Your task to perform on an android device: Go to Android settings Image 0: 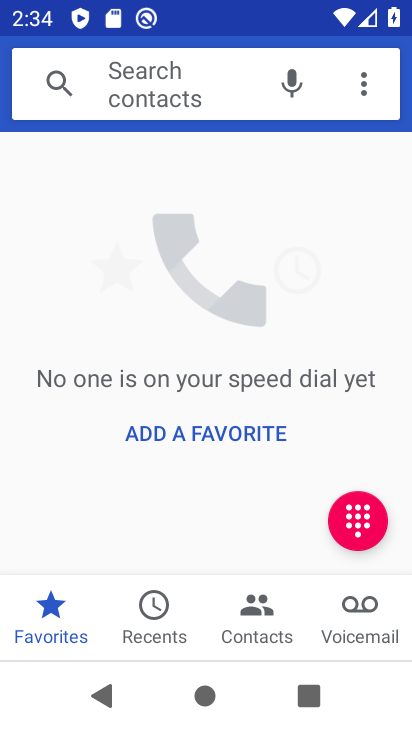
Step 0: press back button
Your task to perform on an android device: Go to Android settings Image 1: 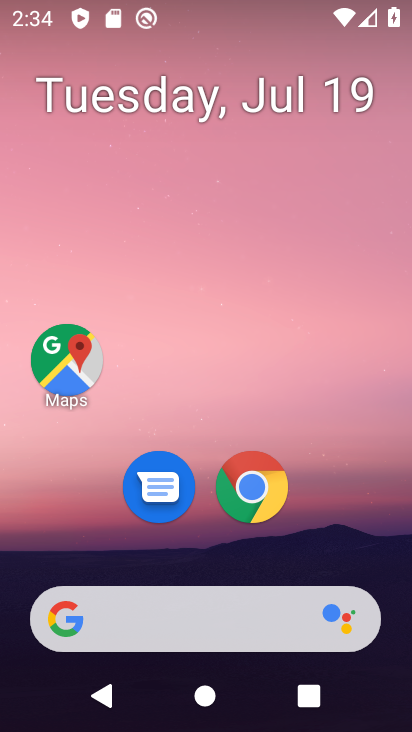
Step 1: drag from (182, 516) to (255, 20)
Your task to perform on an android device: Go to Android settings Image 2: 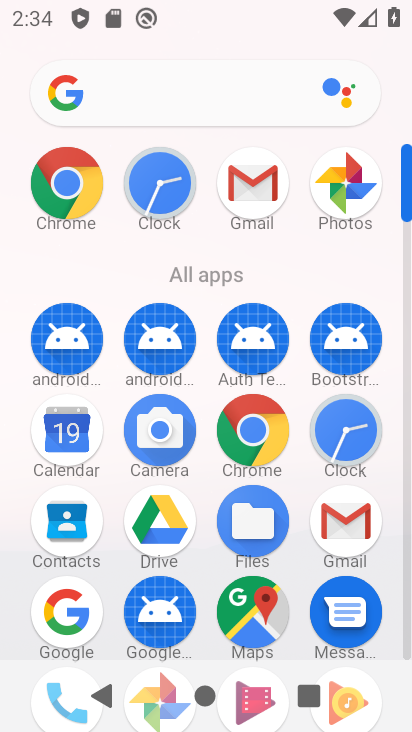
Step 2: drag from (223, 633) to (283, 147)
Your task to perform on an android device: Go to Android settings Image 3: 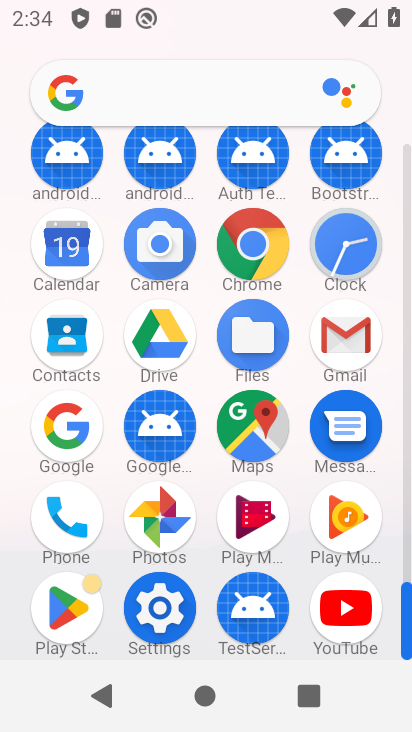
Step 3: click (159, 614)
Your task to perform on an android device: Go to Android settings Image 4: 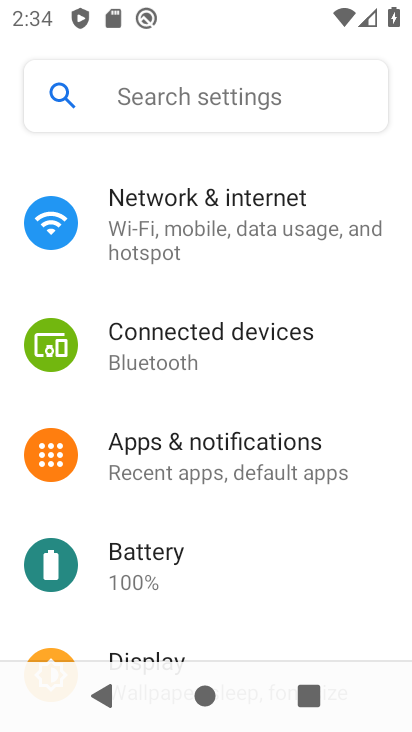
Step 4: drag from (208, 586) to (329, 159)
Your task to perform on an android device: Go to Android settings Image 5: 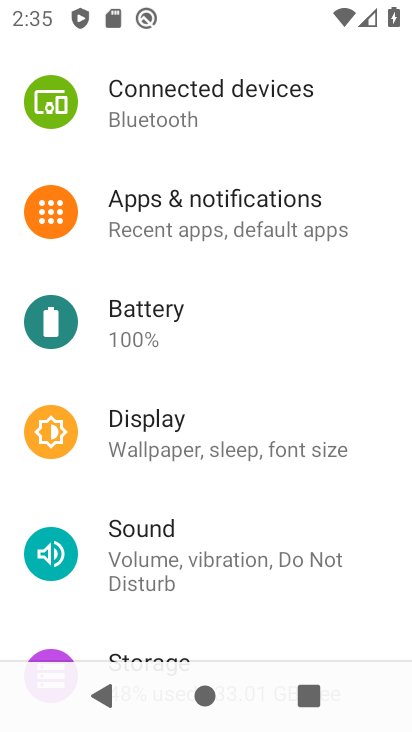
Step 5: drag from (185, 184) to (186, 581)
Your task to perform on an android device: Go to Android settings Image 6: 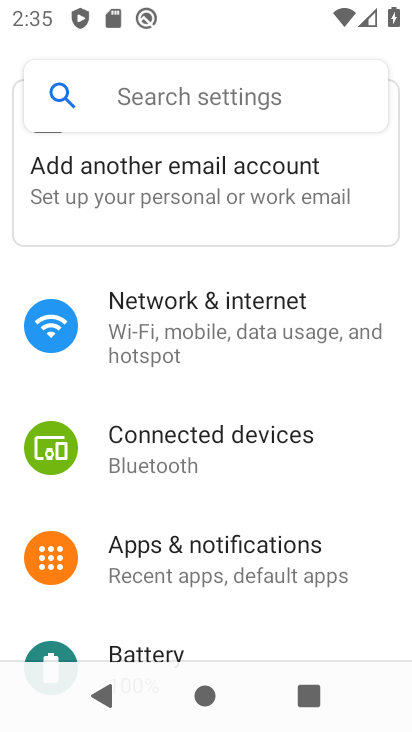
Step 6: drag from (222, 607) to (355, 165)
Your task to perform on an android device: Go to Android settings Image 7: 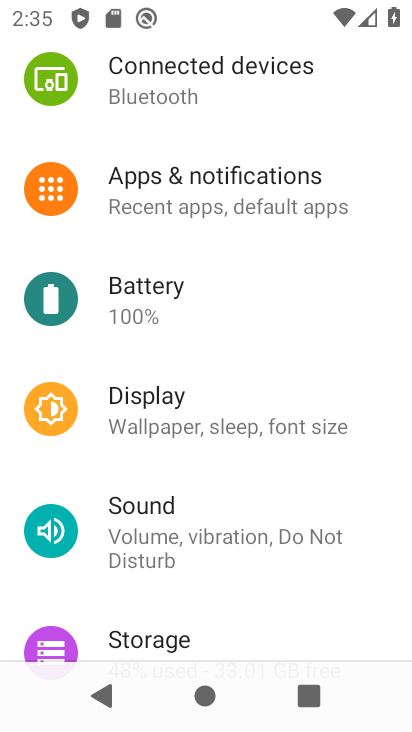
Step 7: drag from (194, 661) to (347, 31)
Your task to perform on an android device: Go to Android settings Image 8: 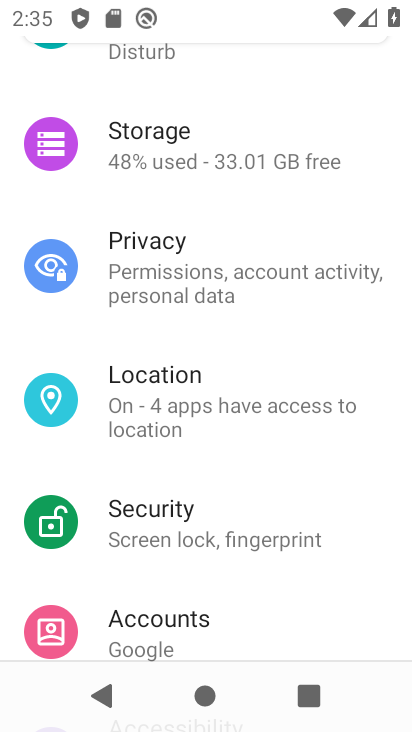
Step 8: drag from (141, 581) to (247, 56)
Your task to perform on an android device: Go to Android settings Image 9: 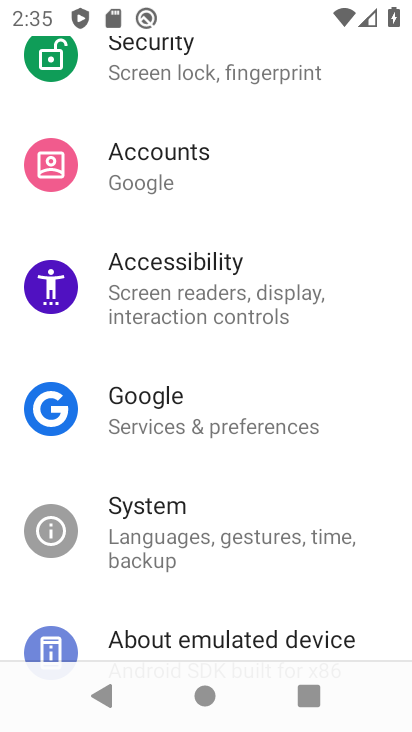
Step 9: drag from (182, 566) to (296, 25)
Your task to perform on an android device: Go to Android settings Image 10: 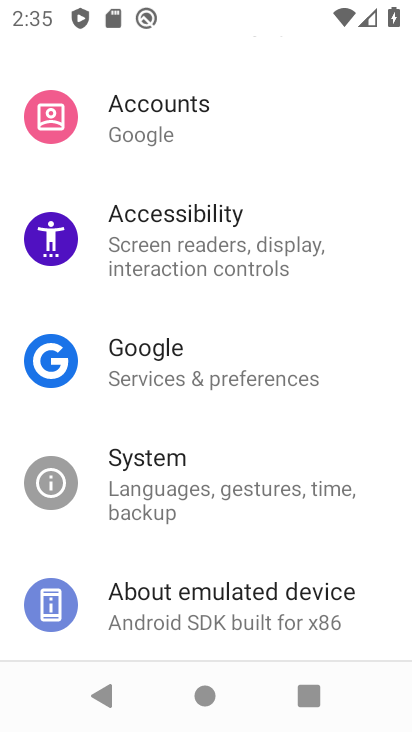
Step 10: click (164, 593)
Your task to perform on an android device: Go to Android settings Image 11: 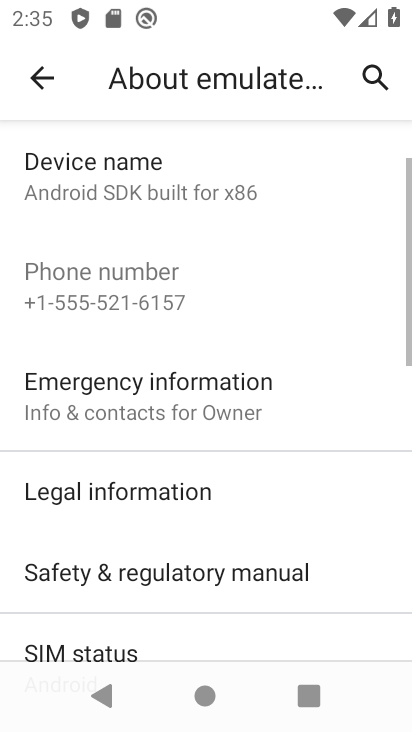
Step 11: drag from (139, 546) to (292, 0)
Your task to perform on an android device: Go to Android settings Image 12: 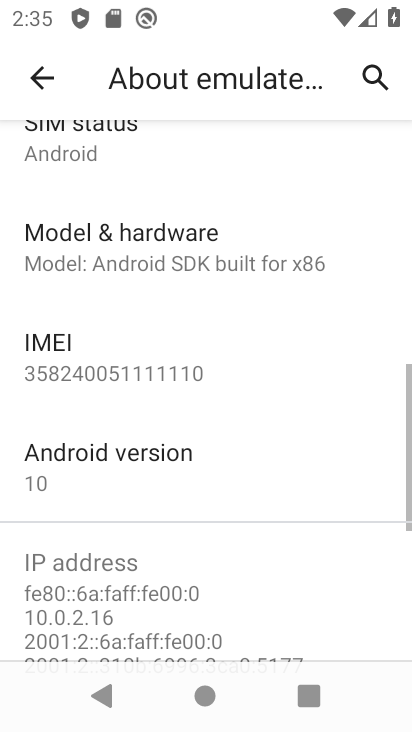
Step 12: click (83, 468)
Your task to perform on an android device: Go to Android settings Image 13: 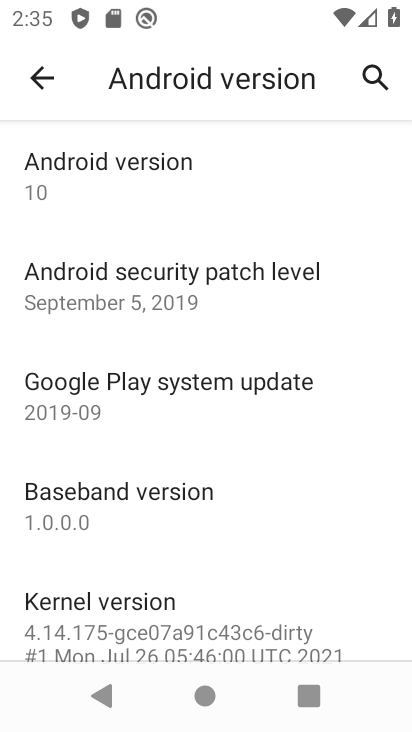
Step 13: click (89, 152)
Your task to perform on an android device: Go to Android settings Image 14: 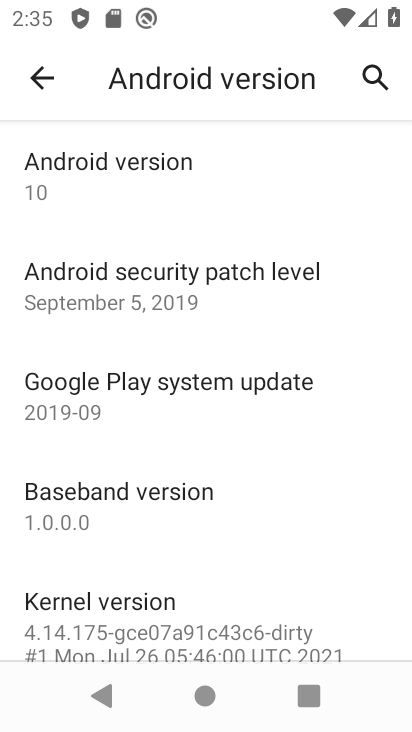
Step 14: task complete